Your task to perform on an android device: stop showing notifications on the lock screen Image 0: 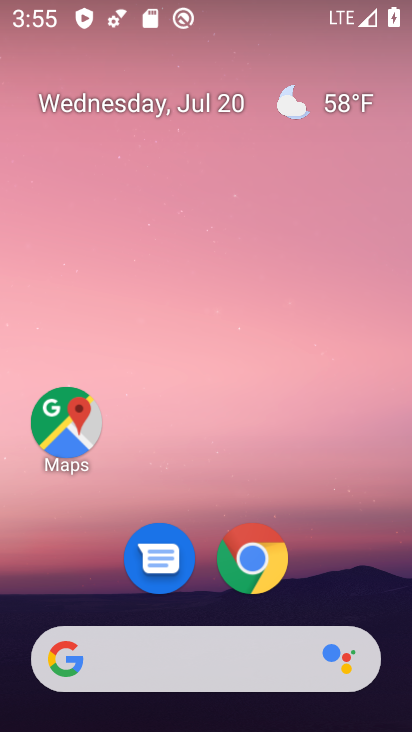
Step 0: drag from (96, 516) to (169, 24)
Your task to perform on an android device: stop showing notifications on the lock screen Image 1: 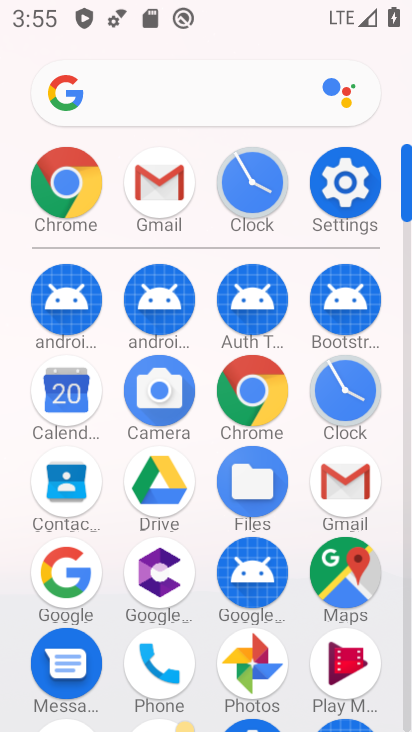
Step 1: click (354, 194)
Your task to perform on an android device: stop showing notifications on the lock screen Image 2: 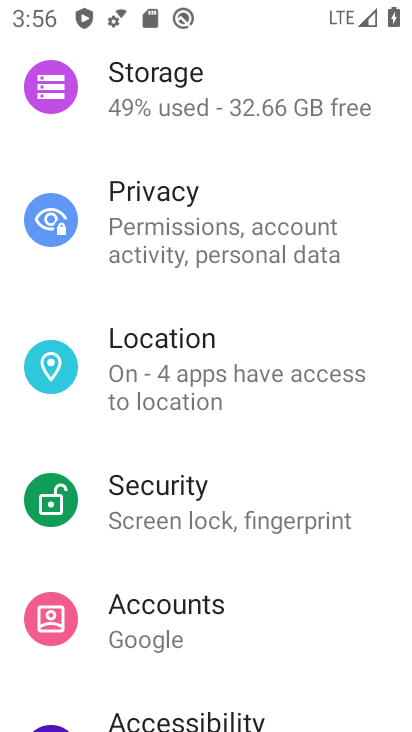
Step 2: drag from (238, 197) to (229, 700)
Your task to perform on an android device: stop showing notifications on the lock screen Image 3: 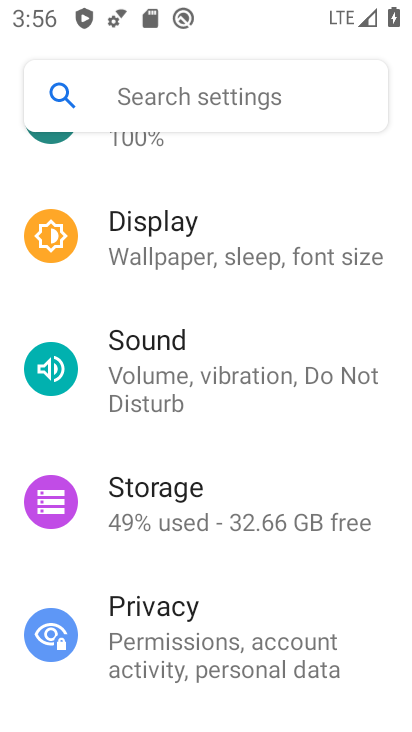
Step 3: drag from (167, 247) to (167, 717)
Your task to perform on an android device: stop showing notifications on the lock screen Image 4: 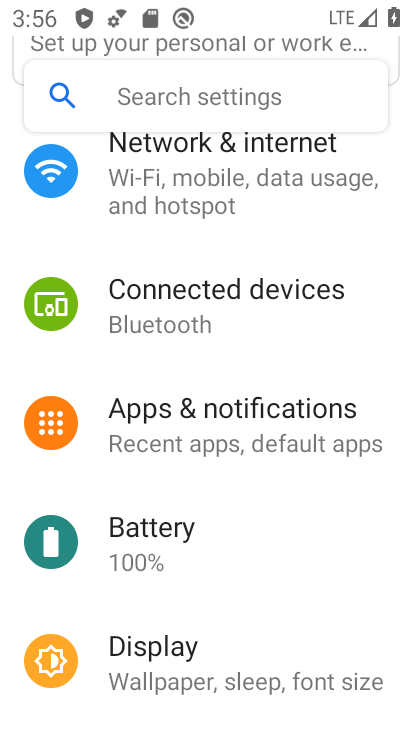
Step 4: drag from (187, 285) to (189, 672)
Your task to perform on an android device: stop showing notifications on the lock screen Image 5: 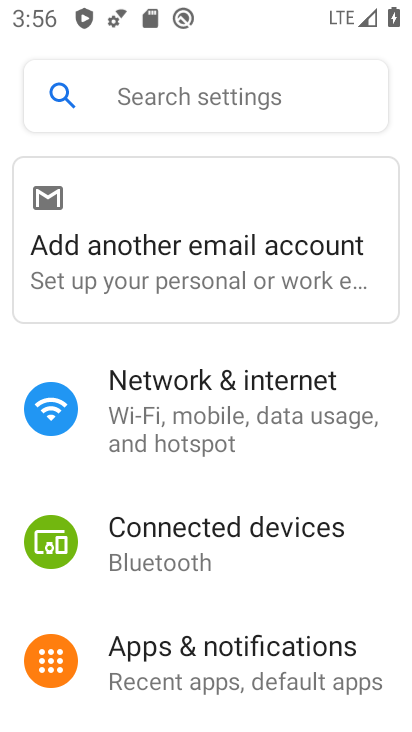
Step 5: click (206, 674)
Your task to perform on an android device: stop showing notifications on the lock screen Image 6: 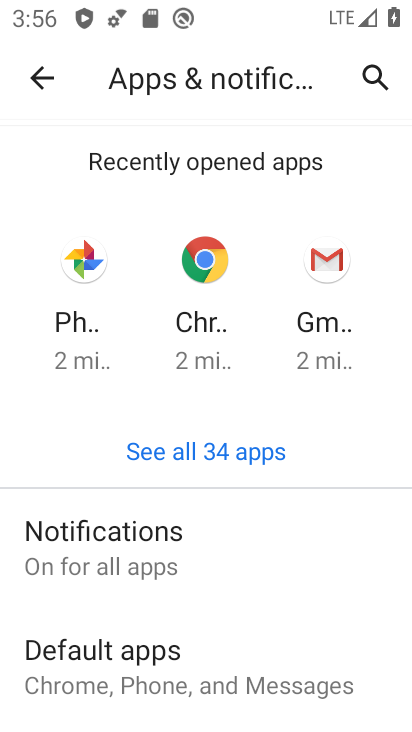
Step 6: drag from (171, 662) to (231, 397)
Your task to perform on an android device: stop showing notifications on the lock screen Image 7: 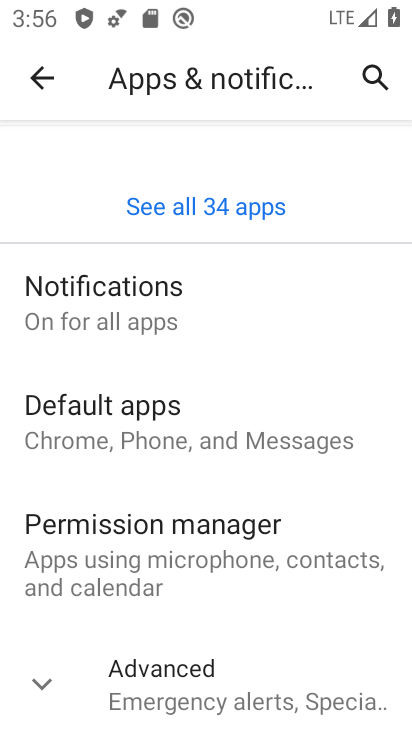
Step 7: click (136, 306)
Your task to perform on an android device: stop showing notifications on the lock screen Image 8: 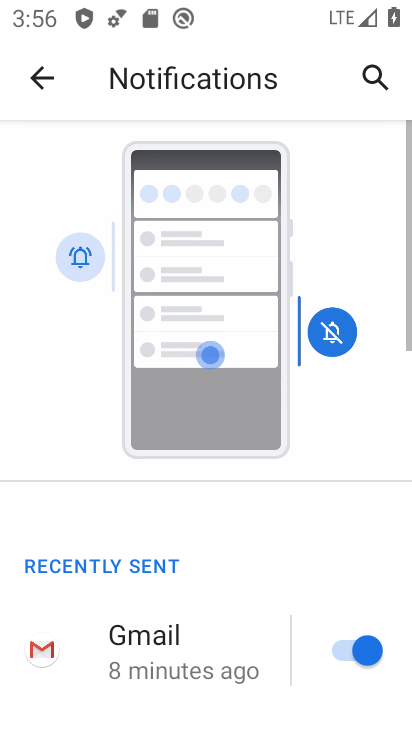
Step 8: drag from (156, 638) to (236, 41)
Your task to perform on an android device: stop showing notifications on the lock screen Image 9: 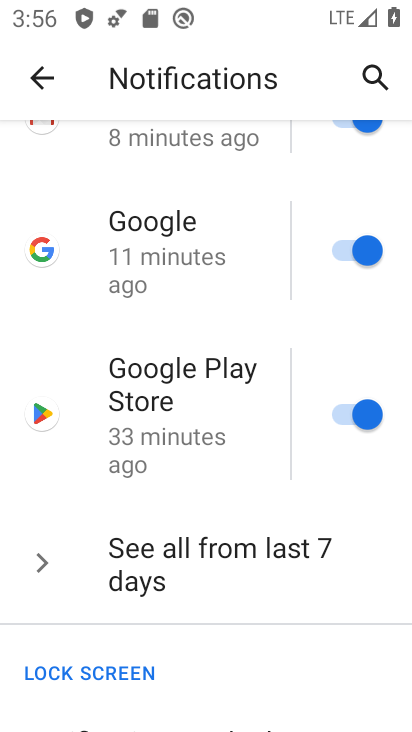
Step 9: drag from (156, 683) to (218, 223)
Your task to perform on an android device: stop showing notifications on the lock screen Image 10: 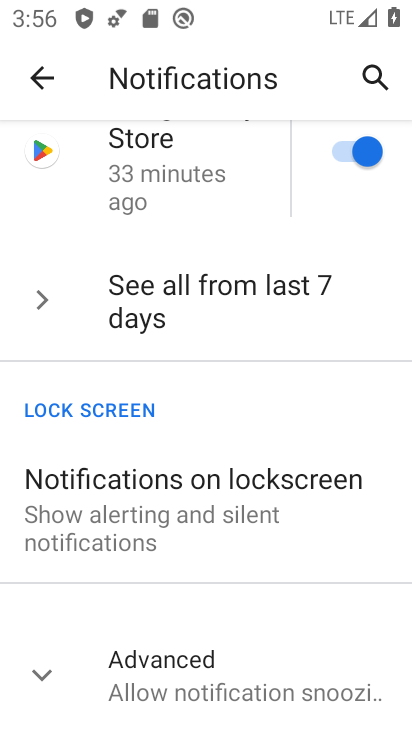
Step 10: click (185, 490)
Your task to perform on an android device: stop showing notifications on the lock screen Image 11: 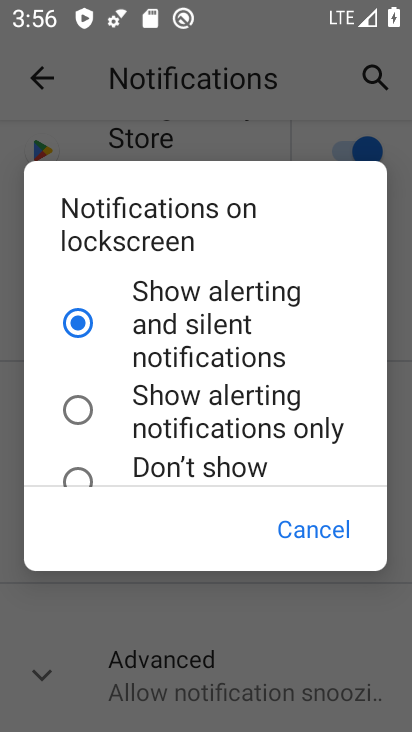
Step 11: drag from (168, 452) to (231, 74)
Your task to perform on an android device: stop showing notifications on the lock screen Image 12: 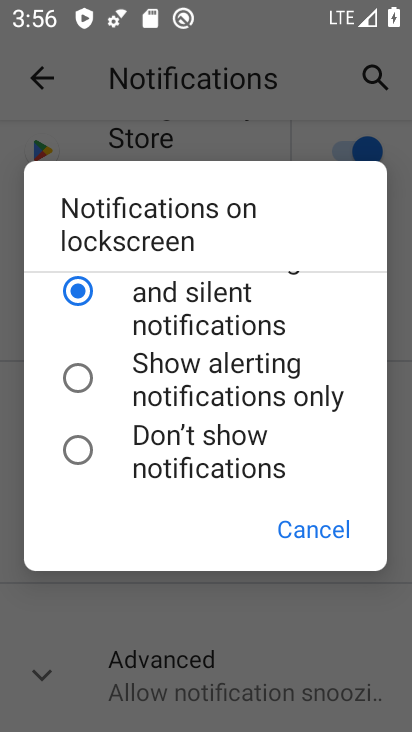
Step 12: click (79, 449)
Your task to perform on an android device: stop showing notifications on the lock screen Image 13: 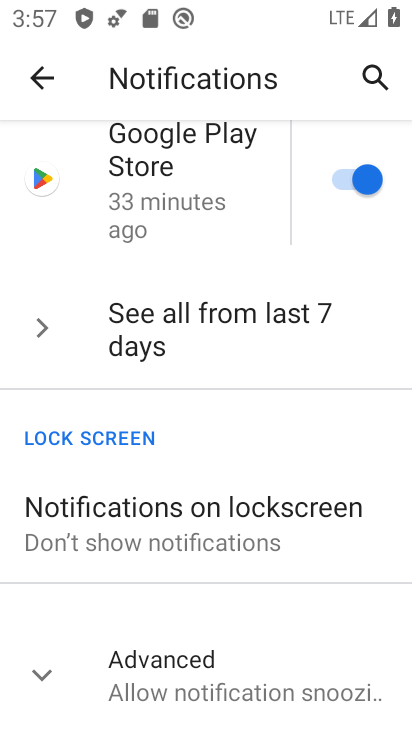
Step 13: task complete